Your task to perform on an android device: Open Google Maps and go to "Timeline" Image 0: 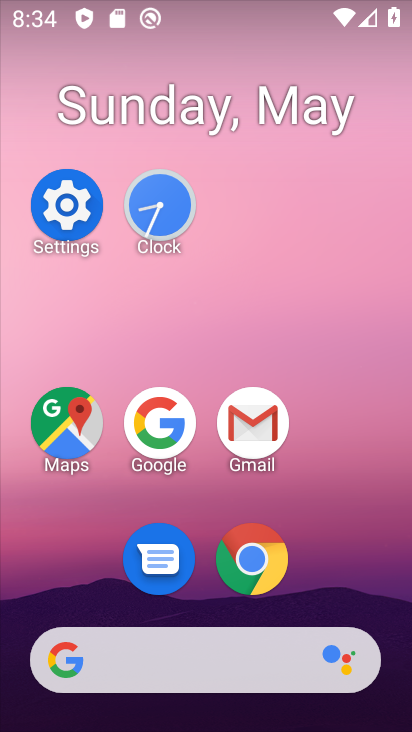
Step 0: click (68, 401)
Your task to perform on an android device: Open Google Maps and go to "Timeline" Image 1: 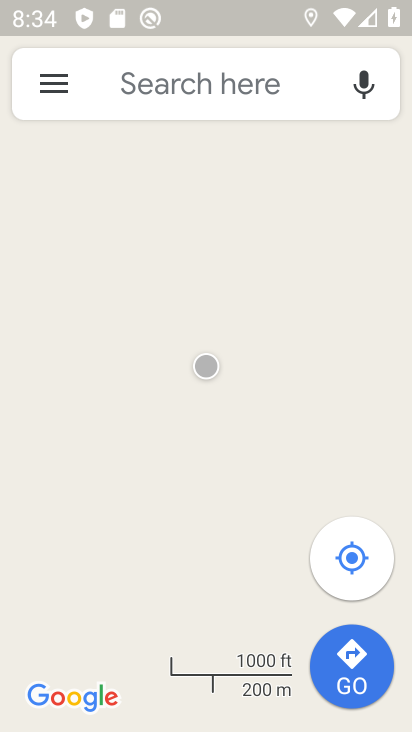
Step 1: click (68, 104)
Your task to perform on an android device: Open Google Maps and go to "Timeline" Image 2: 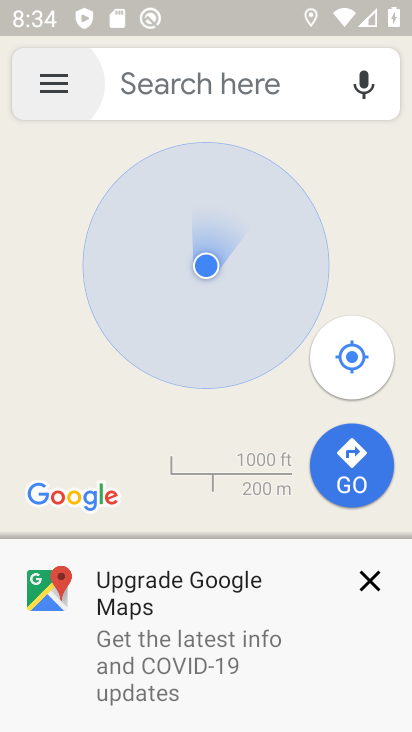
Step 2: click (61, 76)
Your task to perform on an android device: Open Google Maps and go to "Timeline" Image 3: 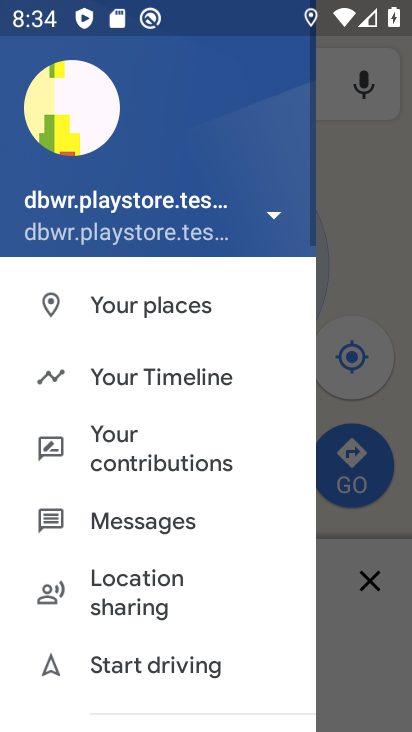
Step 3: click (161, 384)
Your task to perform on an android device: Open Google Maps and go to "Timeline" Image 4: 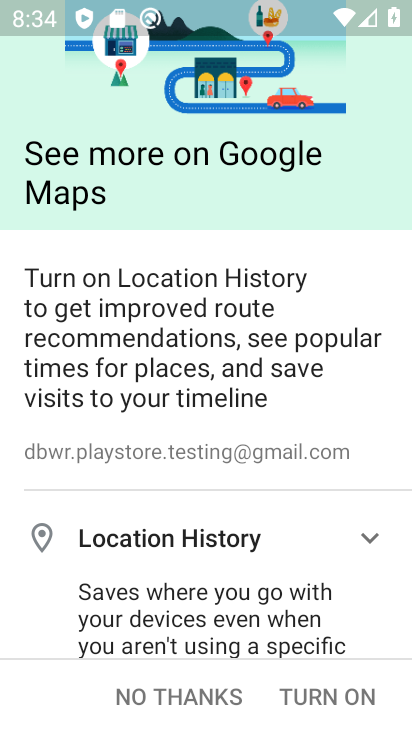
Step 4: click (345, 687)
Your task to perform on an android device: Open Google Maps and go to "Timeline" Image 5: 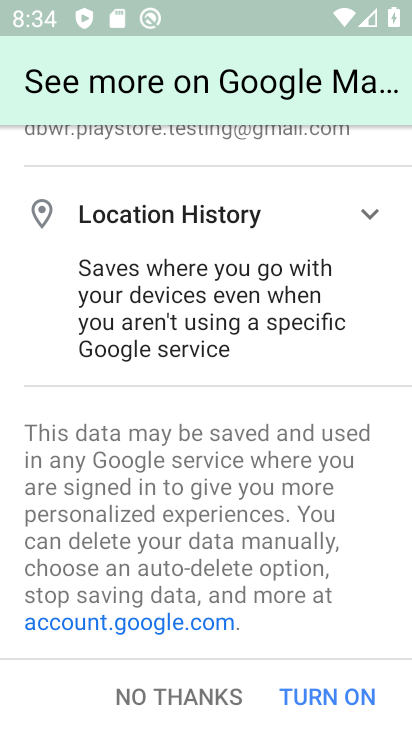
Step 5: click (358, 722)
Your task to perform on an android device: Open Google Maps and go to "Timeline" Image 6: 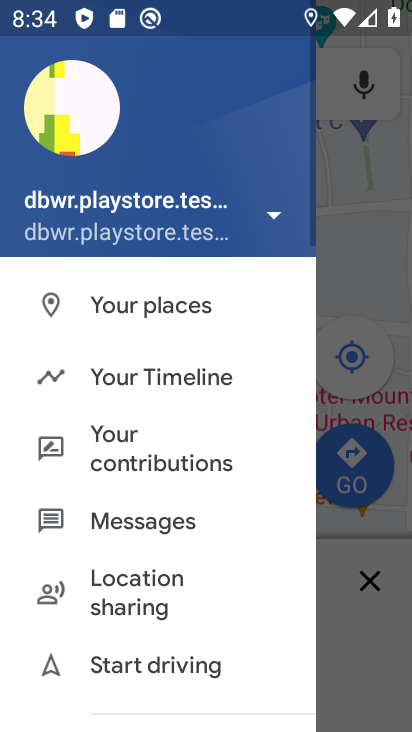
Step 6: click (182, 383)
Your task to perform on an android device: Open Google Maps and go to "Timeline" Image 7: 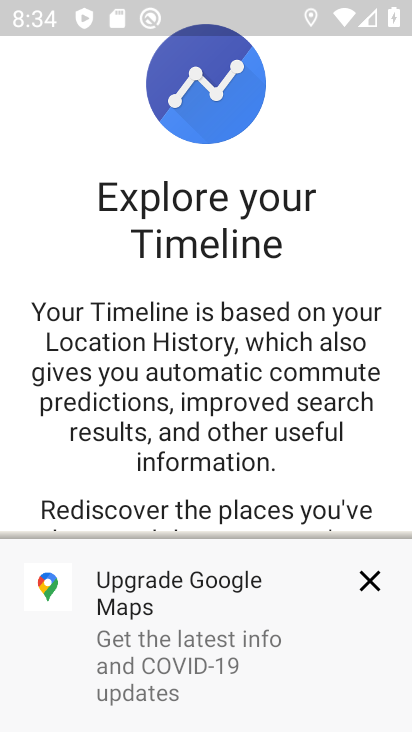
Step 7: click (364, 579)
Your task to perform on an android device: Open Google Maps and go to "Timeline" Image 8: 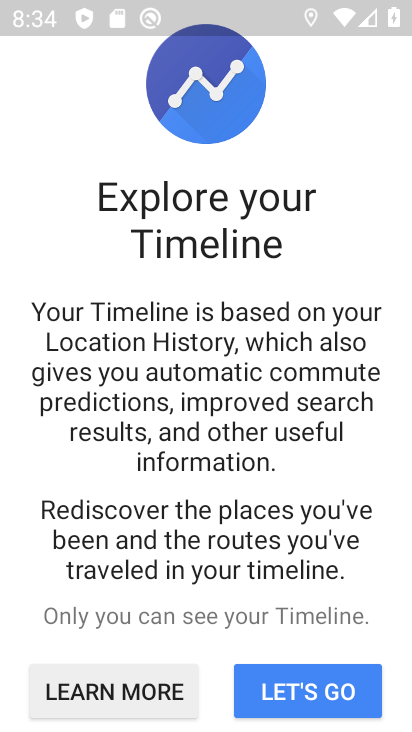
Step 8: click (278, 688)
Your task to perform on an android device: Open Google Maps and go to "Timeline" Image 9: 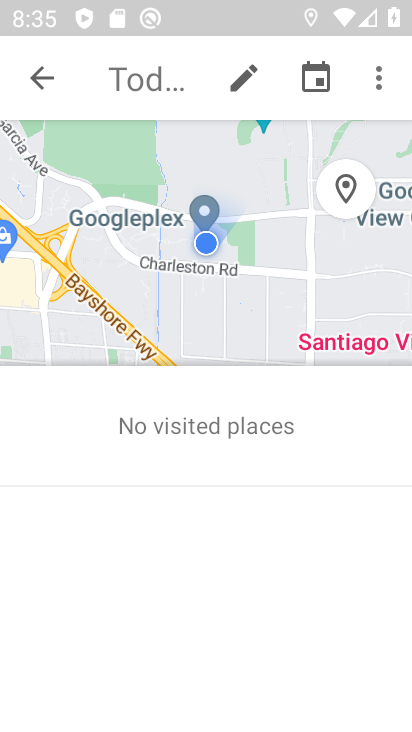
Step 9: task complete